Your task to perform on an android device: Open Chrome and go to the settings page Image 0: 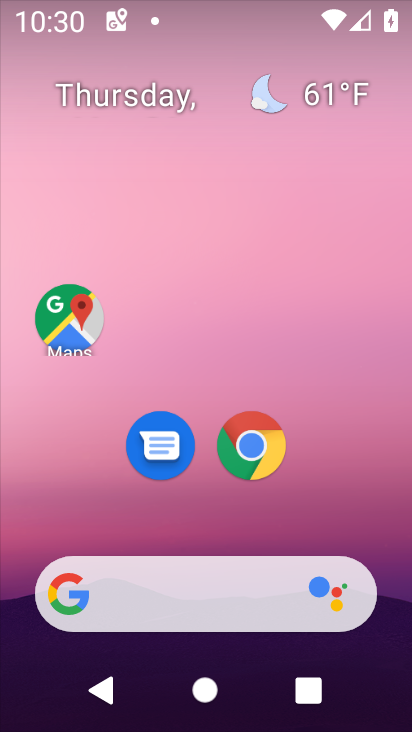
Step 0: click (241, 432)
Your task to perform on an android device: Open Chrome and go to the settings page Image 1: 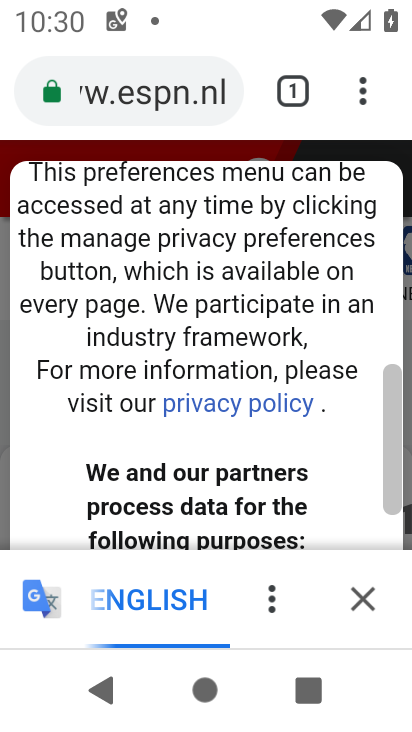
Step 1: click (371, 95)
Your task to perform on an android device: Open Chrome and go to the settings page Image 2: 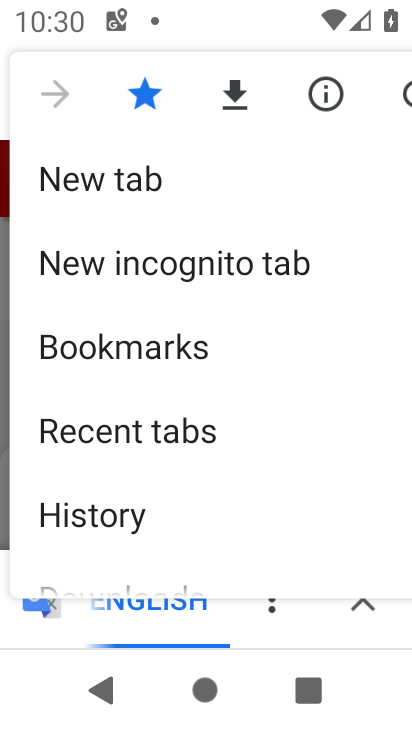
Step 2: drag from (149, 503) to (164, 160)
Your task to perform on an android device: Open Chrome and go to the settings page Image 3: 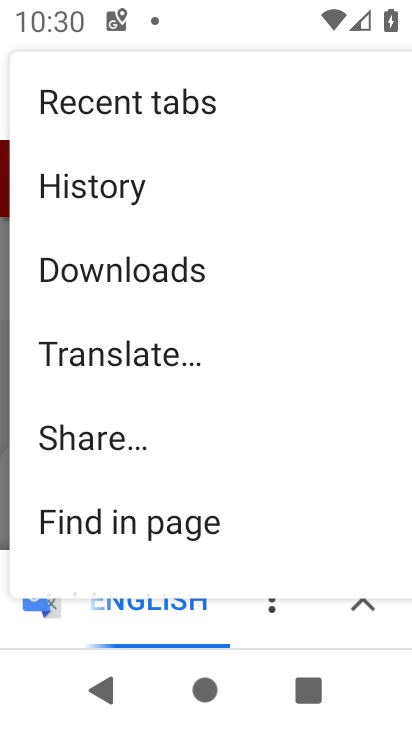
Step 3: drag from (158, 518) to (179, 121)
Your task to perform on an android device: Open Chrome and go to the settings page Image 4: 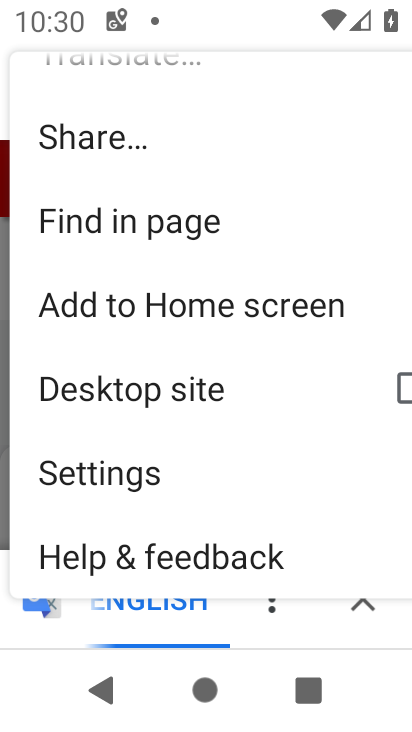
Step 4: click (146, 469)
Your task to perform on an android device: Open Chrome and go to the settings page Image 5: 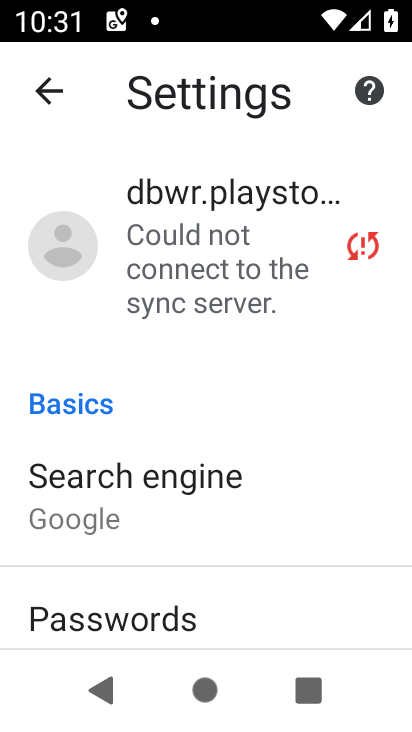
Step 5: task complete